Your task to perform on an android device: Turn off the flashlight Image 0: 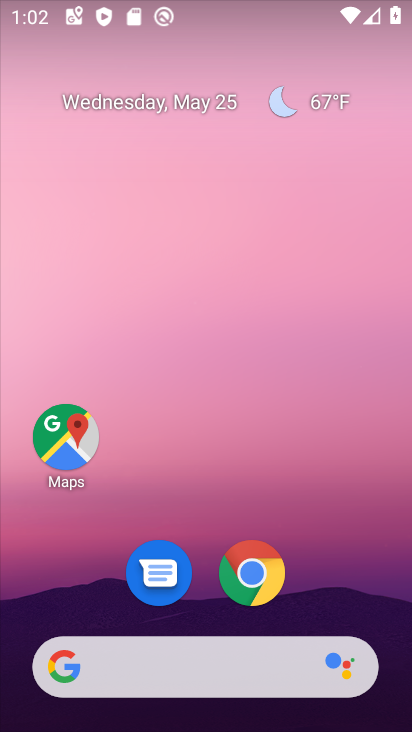
Step 0: drag from (299, 28) to (307, 725)
Your task to perform on an android device: Turn off the flashlight Image 1: 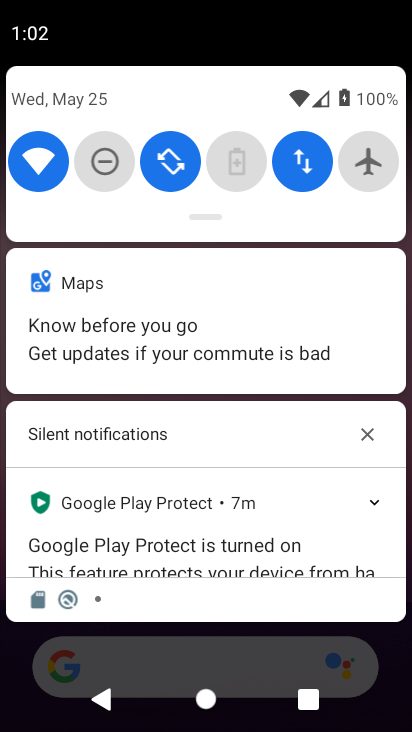
Step 1: task complete